Your task to perform on an android device: Go to display settings Image 0: 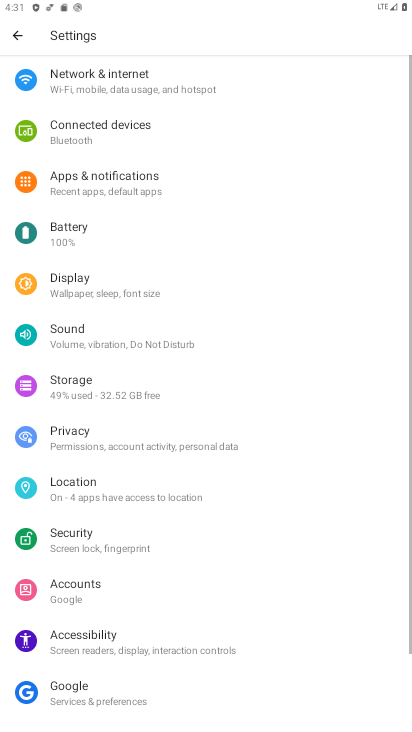
Step 0: click (98, 287)
Your task to perform on an android device: Go to display settings Image 1: 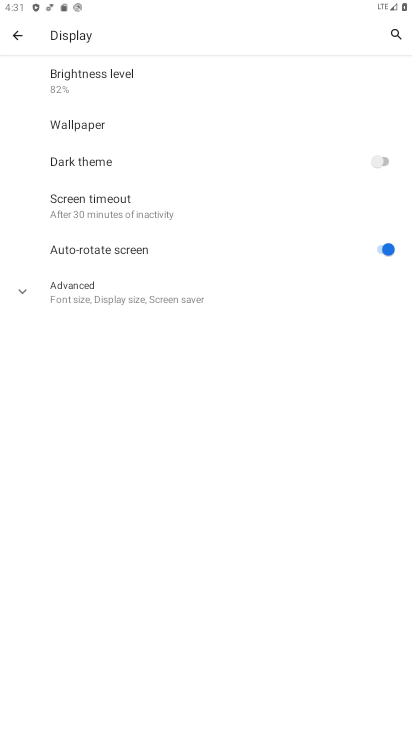
Step 1: task complete